Your task to perform on an android device: change the upload size in google photos Image 0: 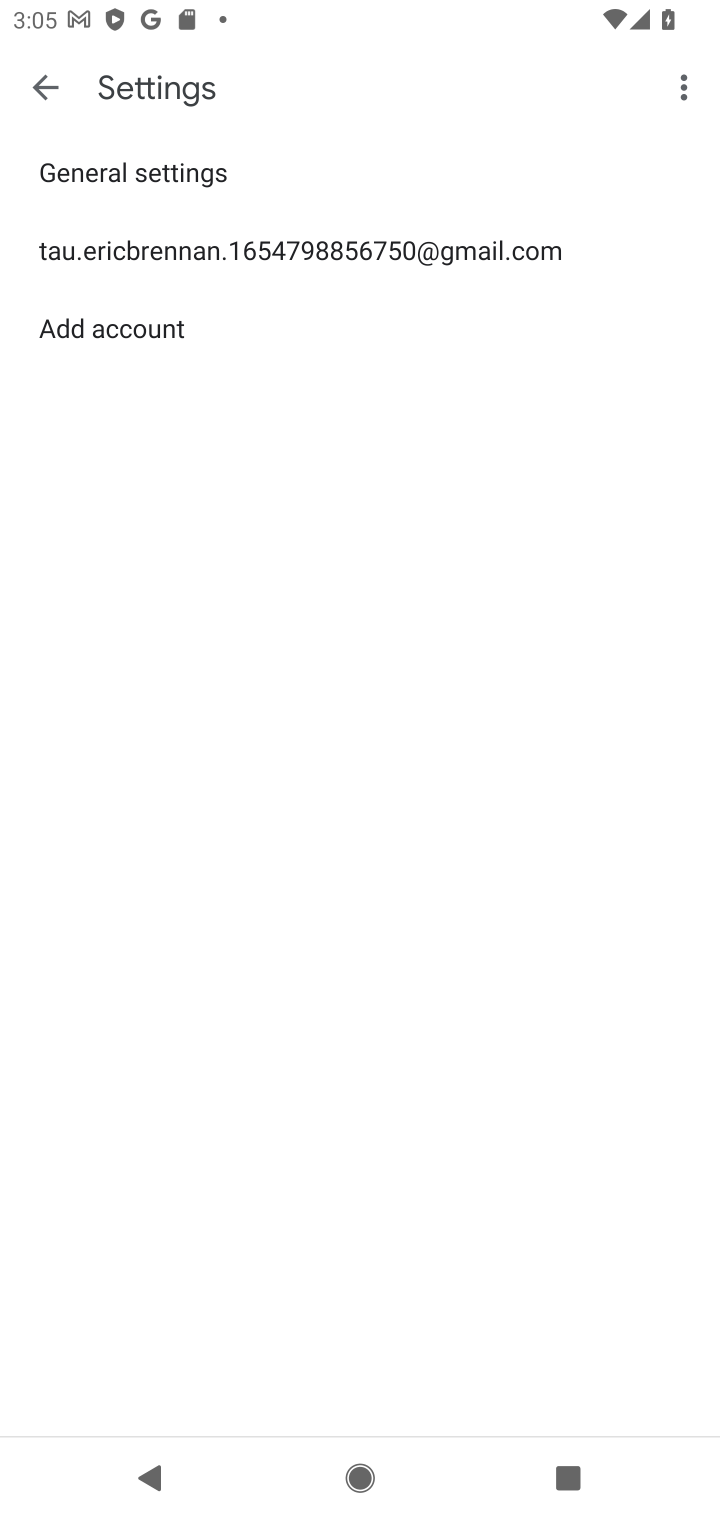
Step 0: press home button
Your task to perform on an android device: change the upload size in google photos Image 1: 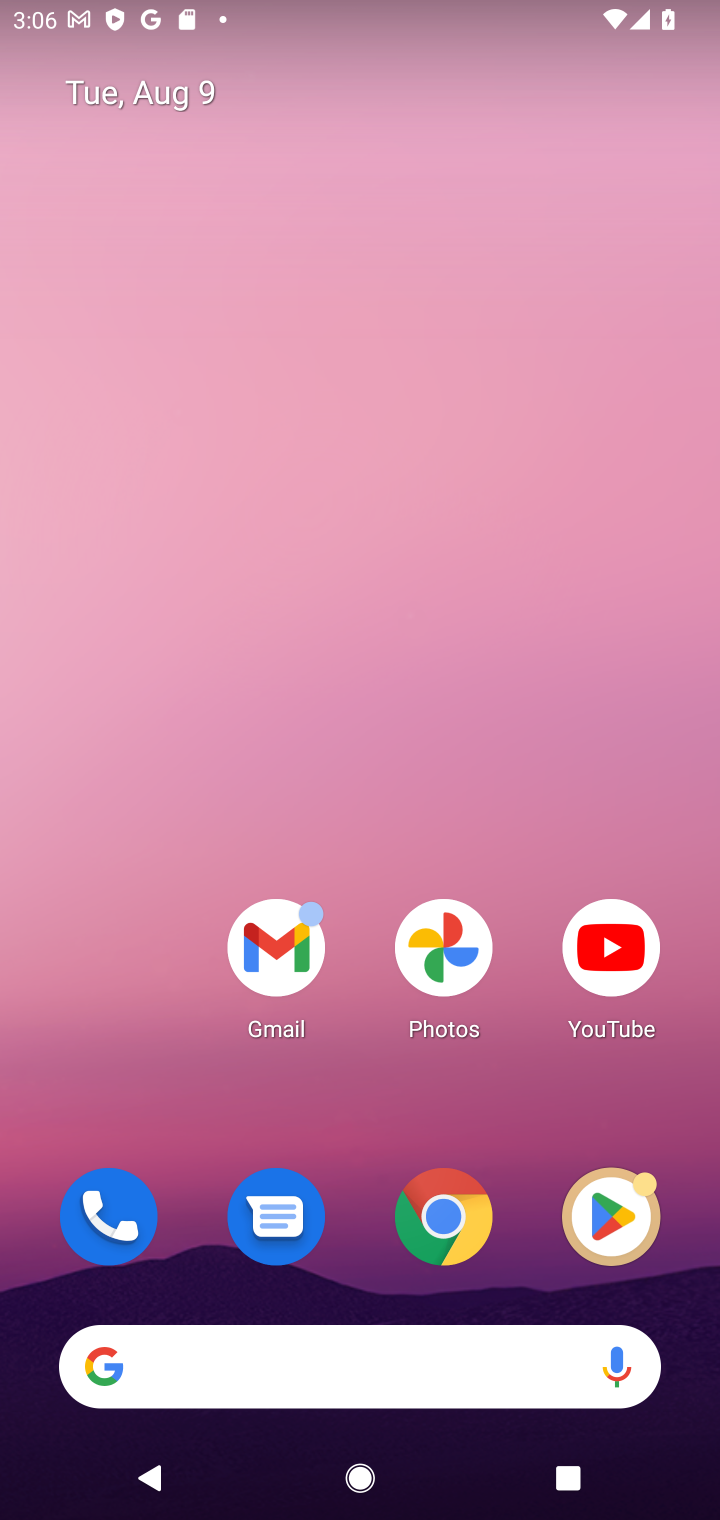
Step 1: click (423, 929)
Your task to perform on an android device: change the upload size in google photos Image 2: 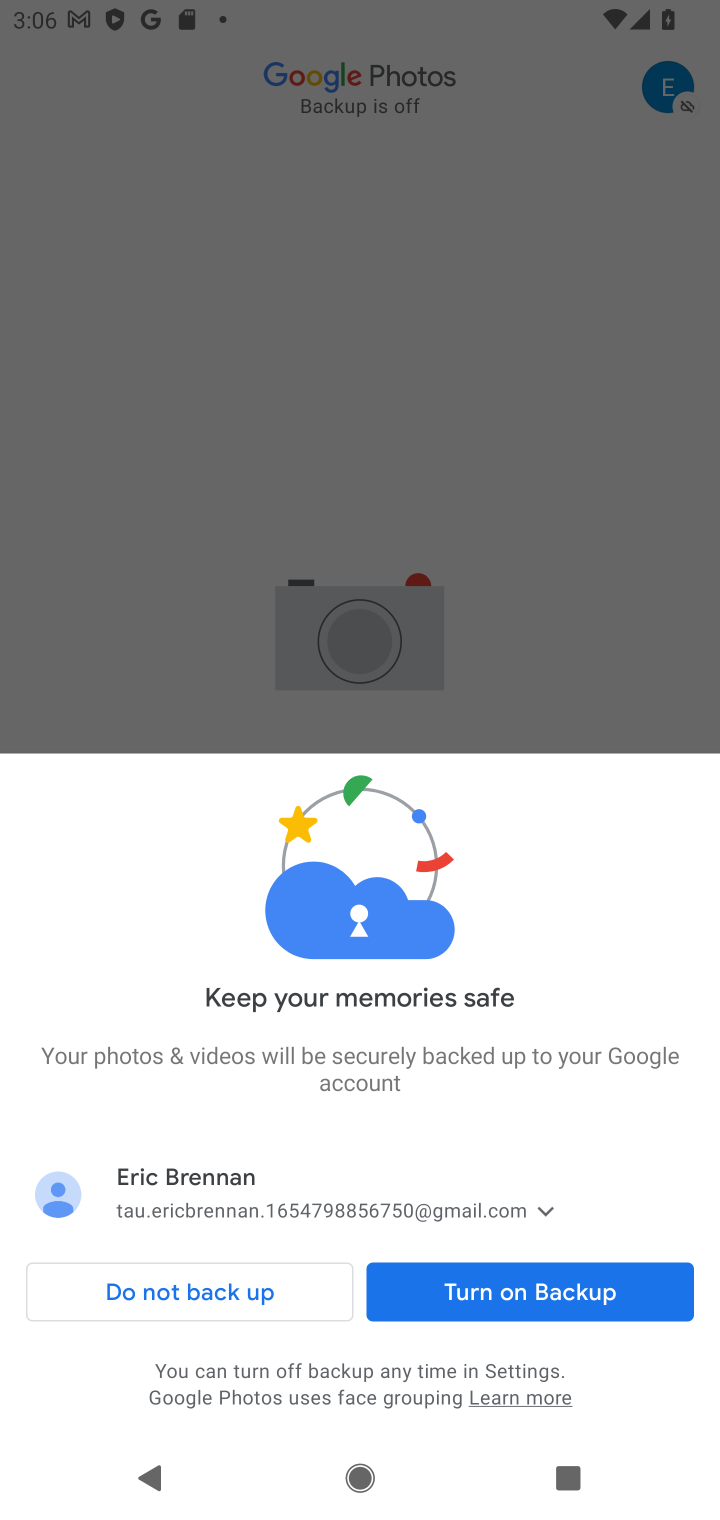
Step 2: click (469, 1296)
Your task to perform on an android device: change the upload size in google photos Image 3: 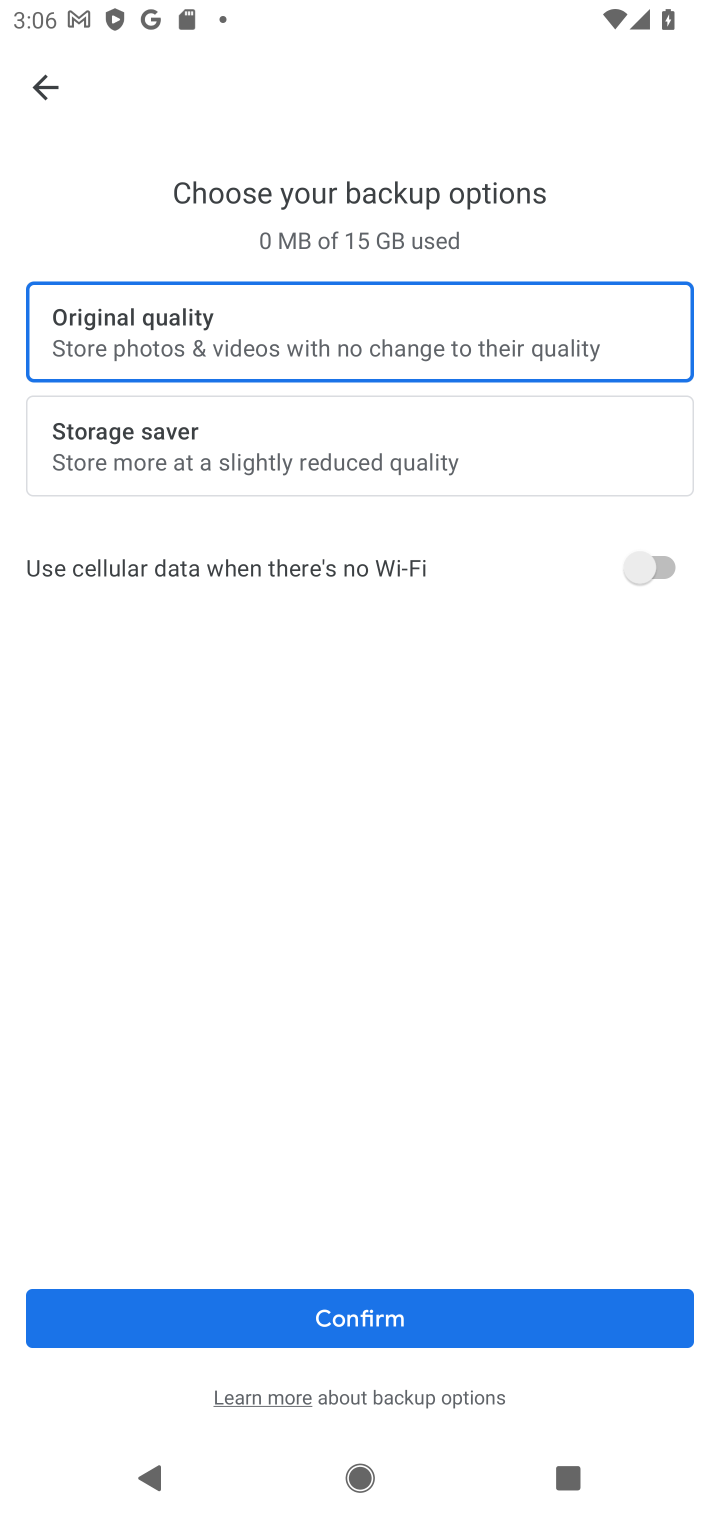
Step 3: click (256, 456)
Your task to perform on an android device: change the upload size in google photos Image 4: 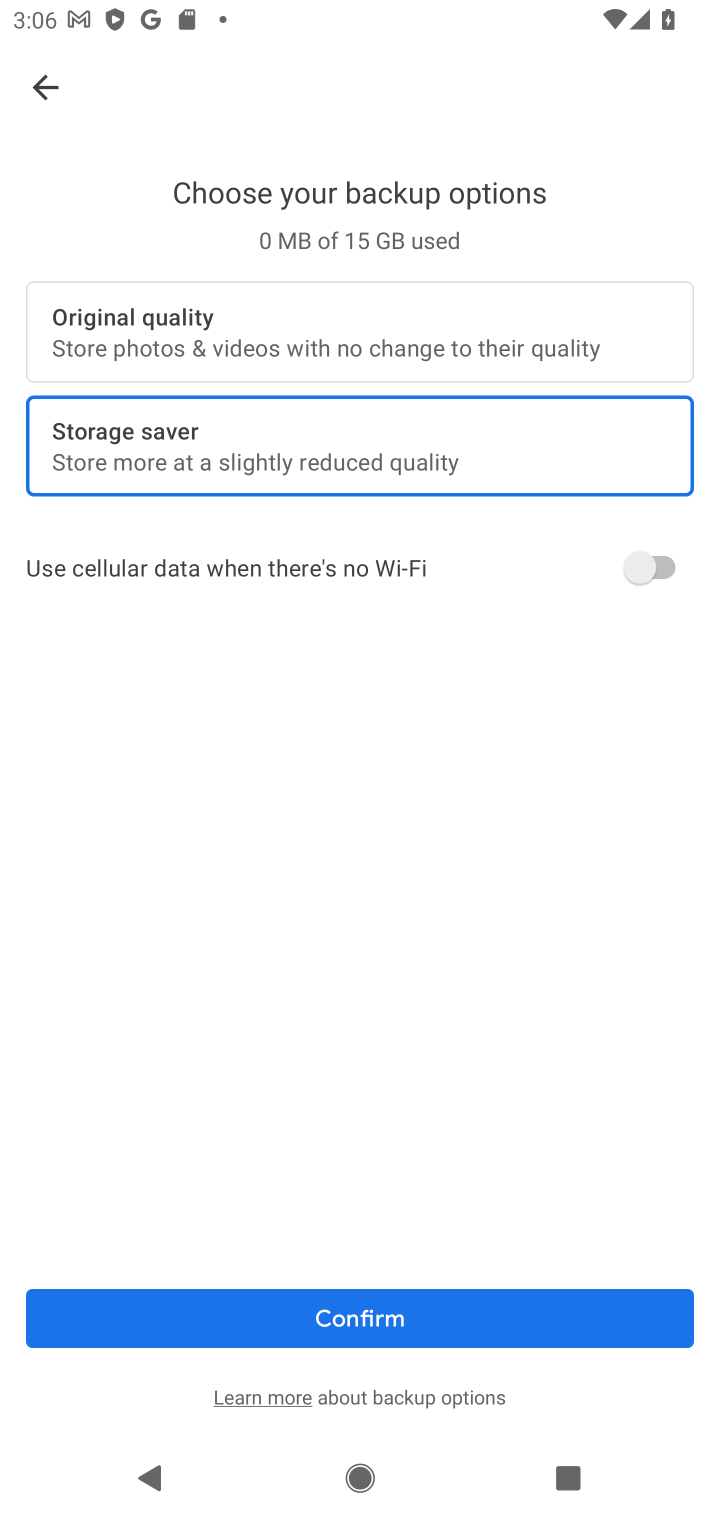
Step 4: click (446, 1330)
Your task to perform on an android device: change the upload size in google photos Image 5: 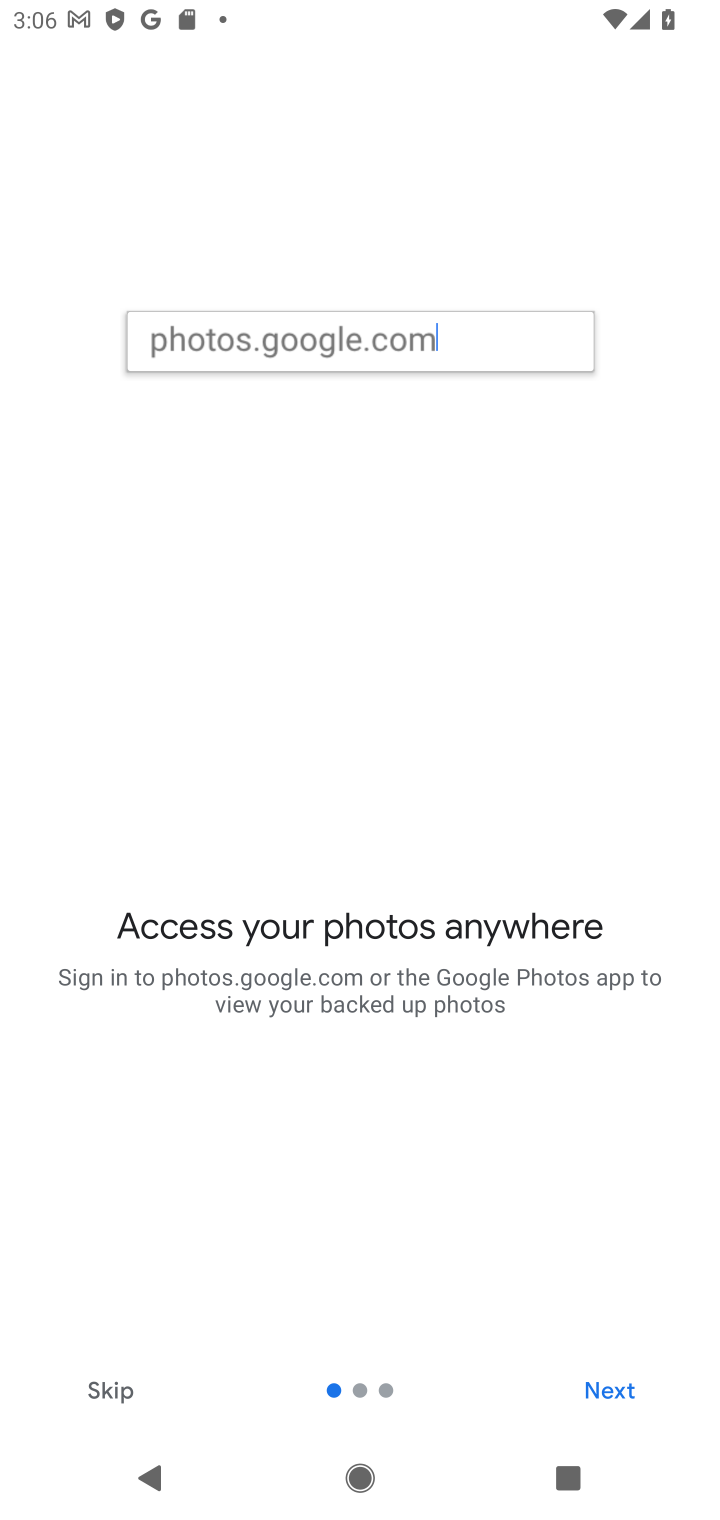
Step 5: task complete